Your task to perform on an android device: Check the news Image 0: 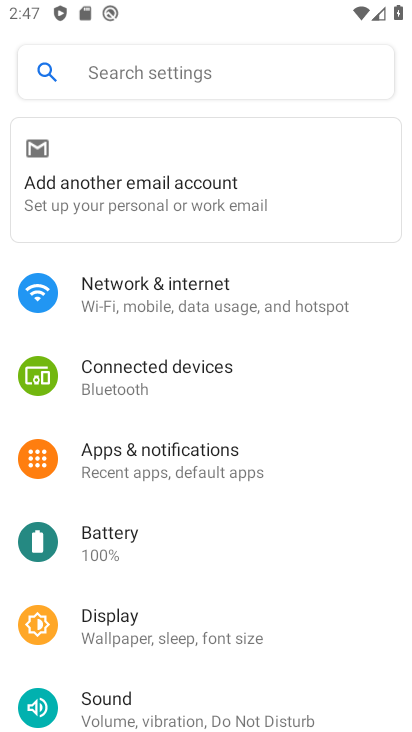
Step 0: press home button
Your task to perform on an android device: Check the news Image 1: 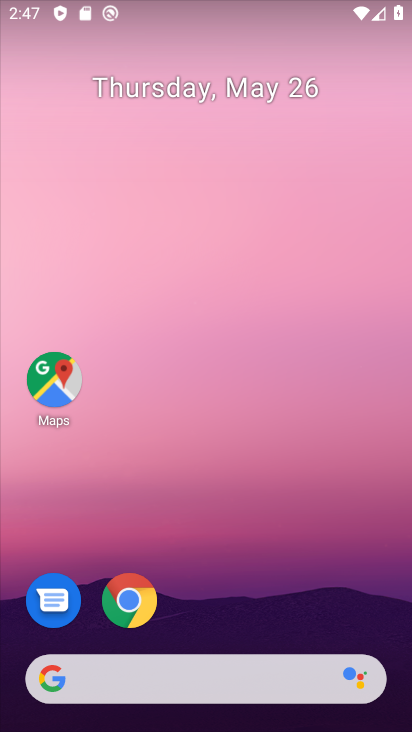
Step 1: drag from (229, 616) to (296, 213)
Your task to perform on an android device: Check the news Image 2: 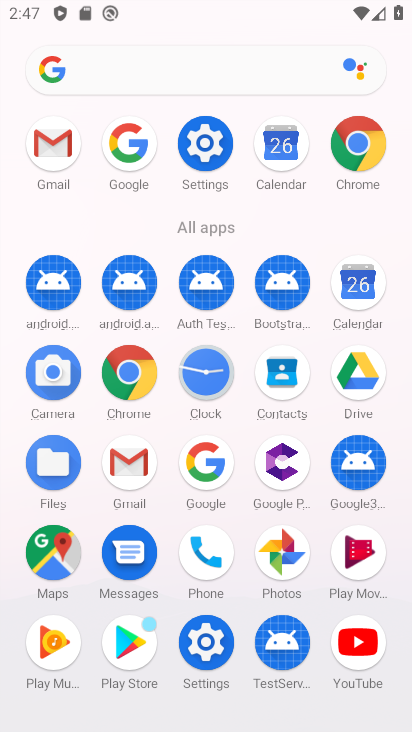
Step 2: click (218, 481)
Your task to perform on an android device: Check the news Image 3: 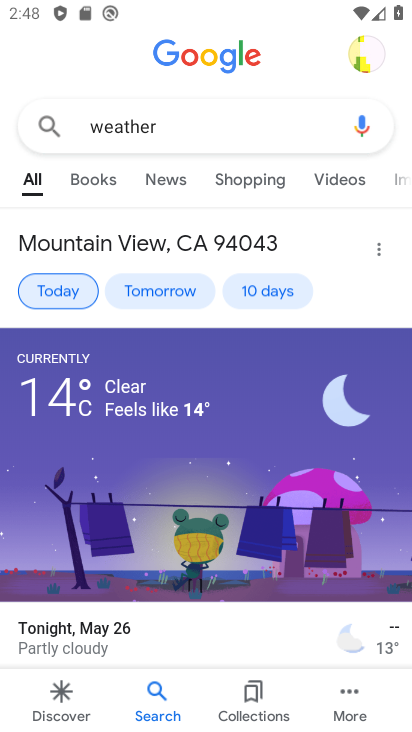
Step 3: click (210, 111)
Your task to perform on an android device: Check the news Image 4: 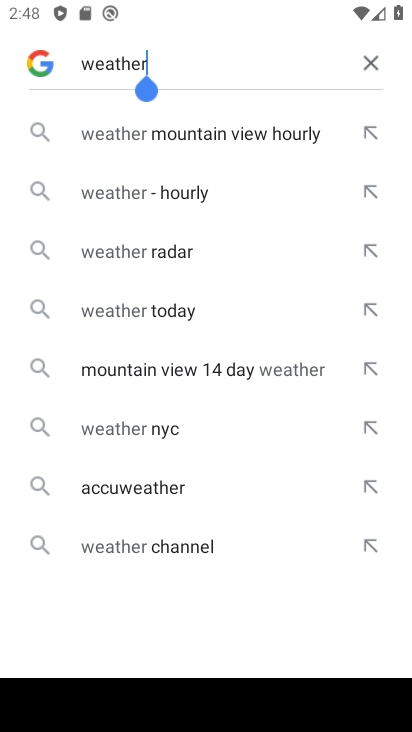
Step 4: click (366, 58)
Your task to perform on an android device: Check the news Image 5: 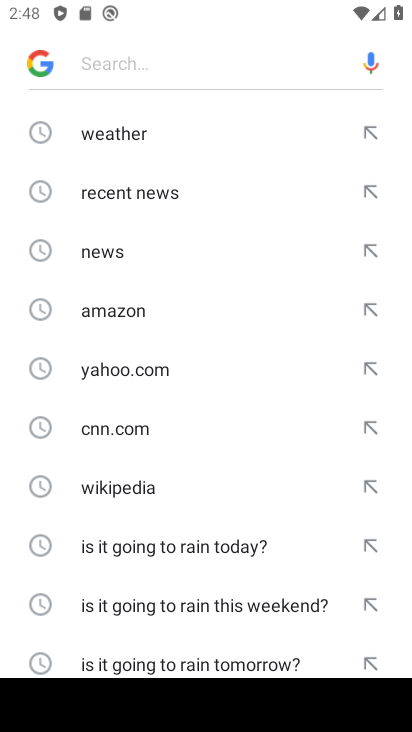
Step 5: click (111, 261)
Your task to perform on an android device: Check the news Image 6: 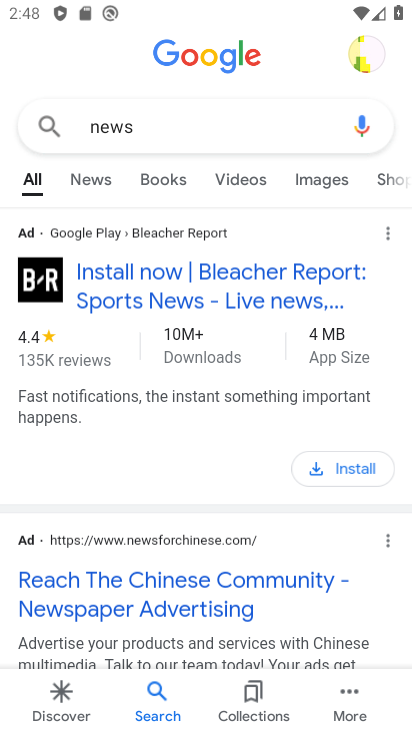
Step 6: task complete